Your task to perform on an android device: open app "LiveIn - Share Your Moment" (install if not already installed) and go to login screen Image 0: 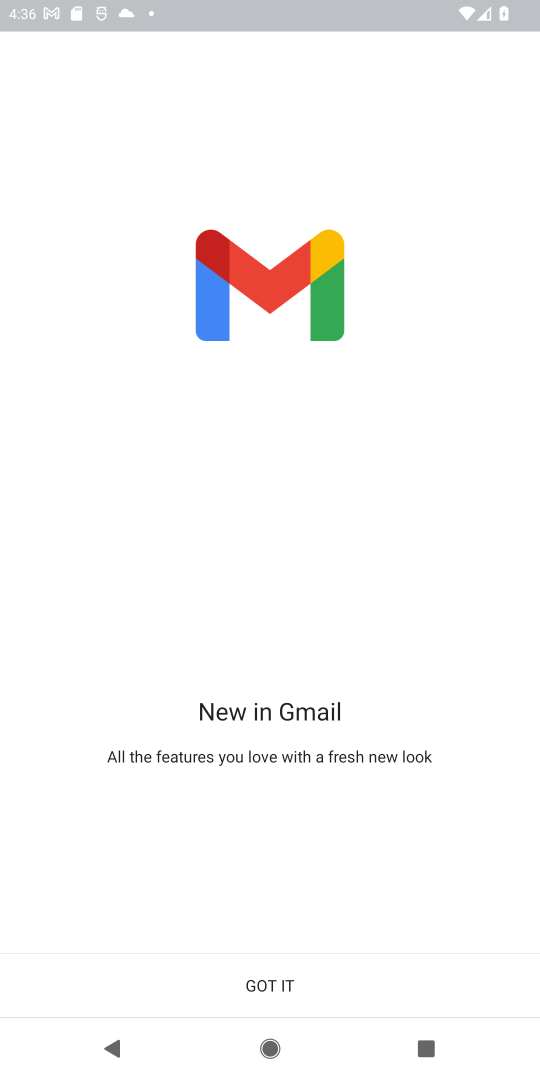
Step 0: press home button
Your task to perform on an android device: open app "LiveIn - Share Your Moment" (install if not already installed) and go to login screen Image 1: 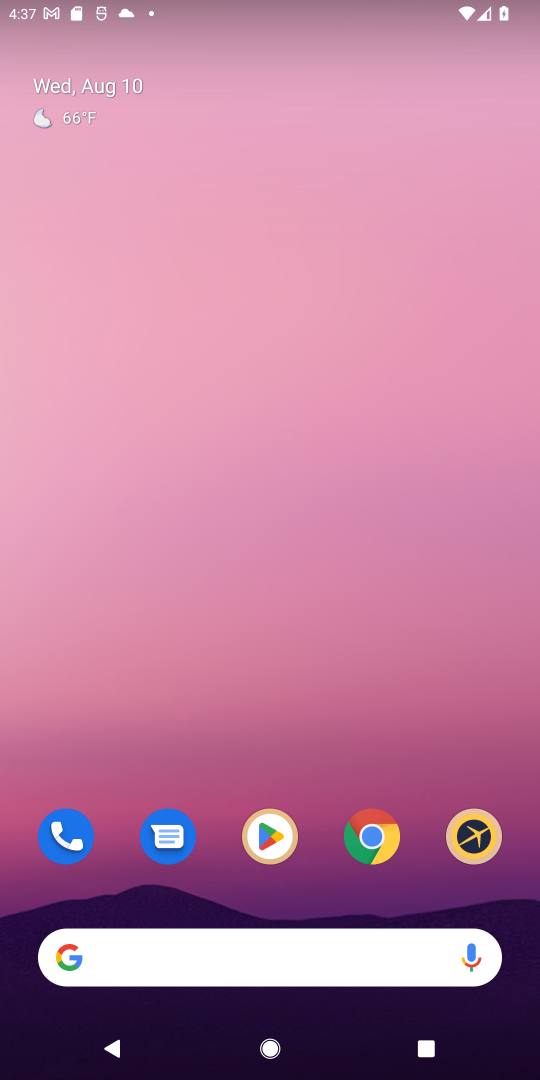
Step 1: drag from (167, 943) to (217, 40)
Your task to perform on an android device: open app "LiveIn - Share Your Moment" (install if not already installed) and go to login screen Image 2: 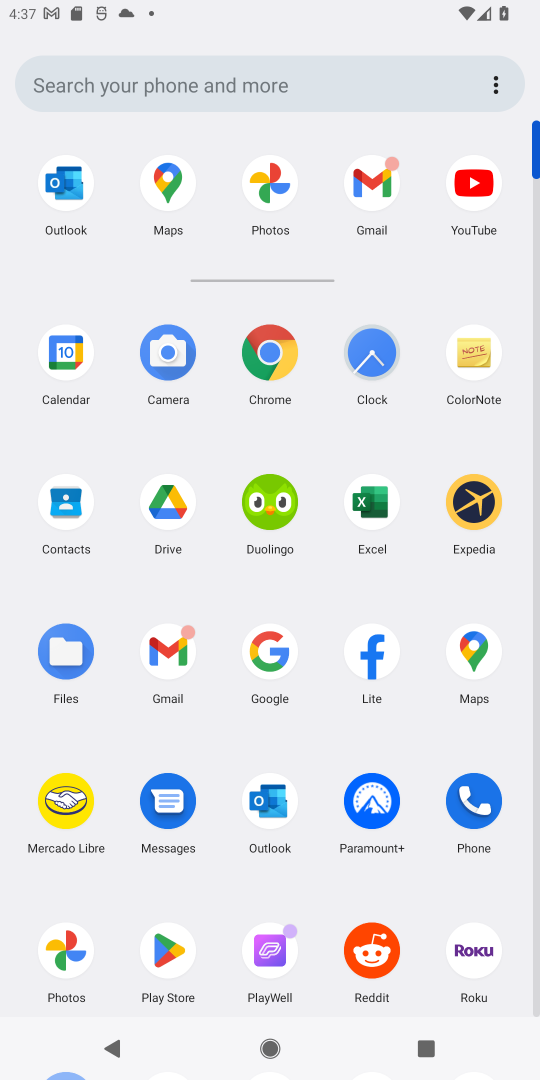
Step 2: click (162, 970)
Your task to perform on an android device: open app "LiveIn - Share Your Moment" (install if not already installed) and go to login screen Image 3: 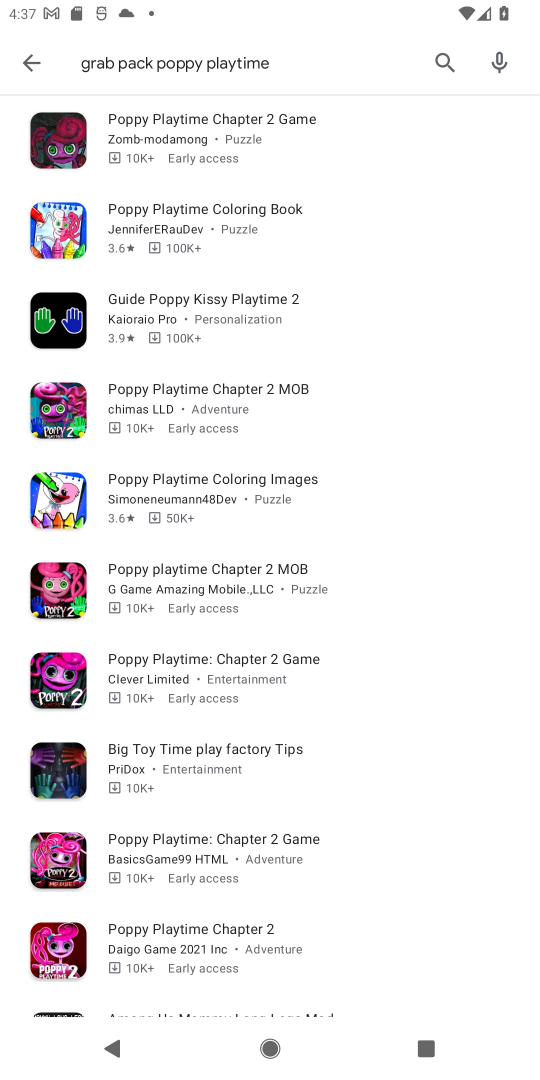
Step 3: click (43, 66)
Your task to perform on an android device: open app "LiveIn - Share Your Moment" (install if not already installed) and go to login screen Image 4: 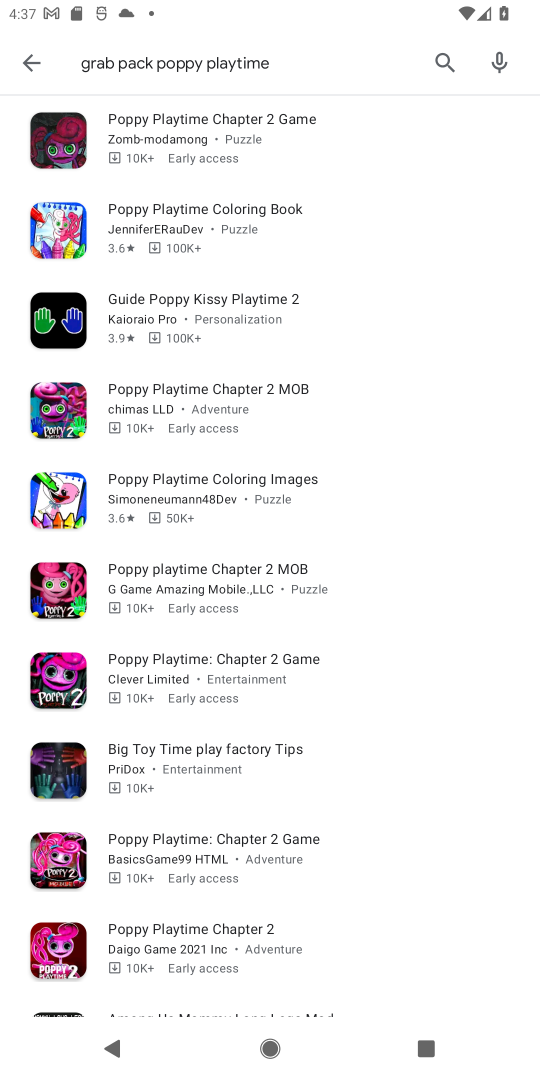
Step 4: click (43, 66)
Your task to perform on an android device: open app "LiveIn - Share Your Moment" (install if not already installed) and go to login screen Image 5: 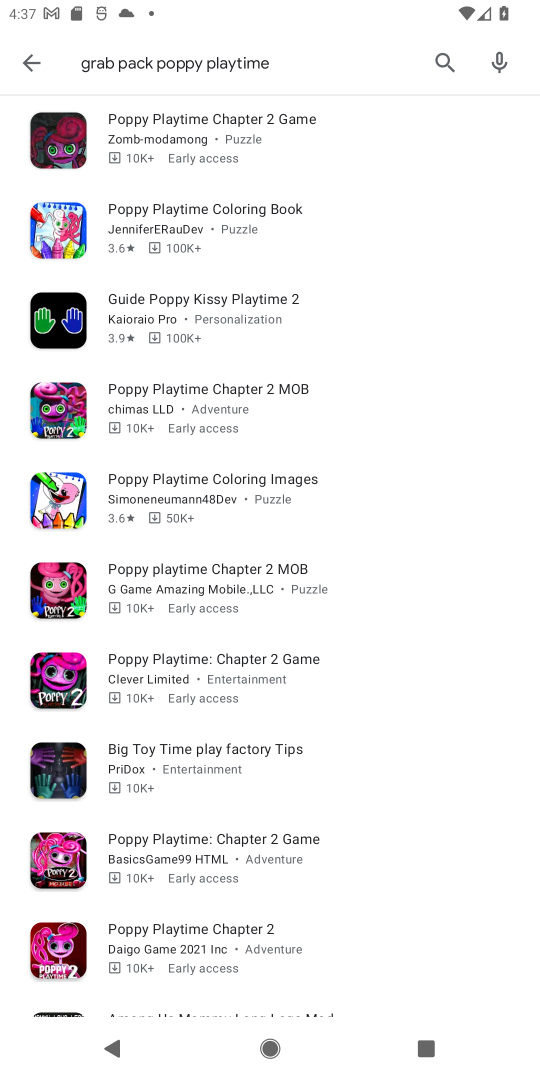
Step 5: click (43, 66)
Your task to perform on an android device: open app "LiveIn - Share Your Moment" (install if not already installed) and go to login screen Image 6: 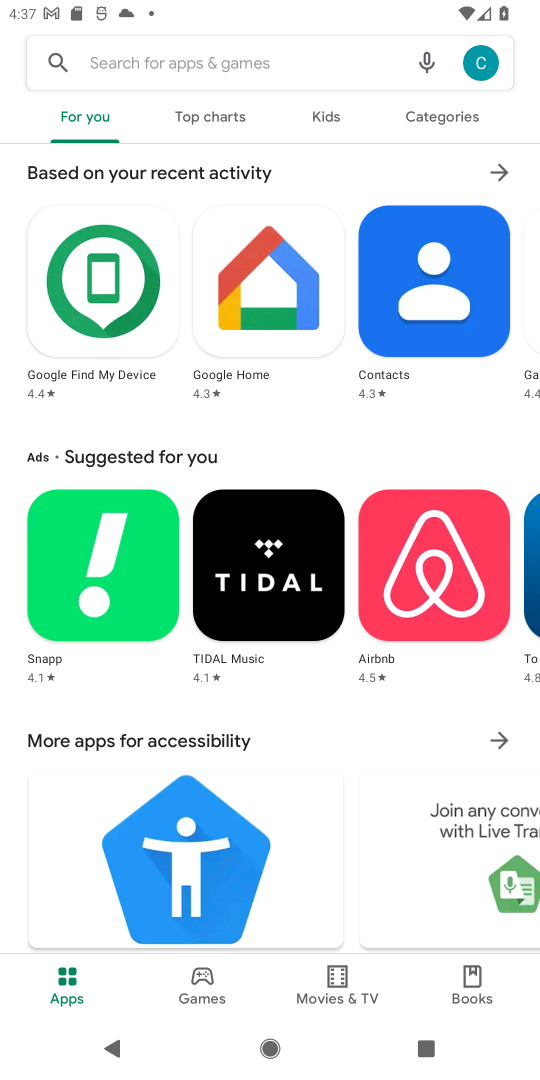
Step 6: click (287, 49)
Your task to perform on an android device: open app "LiveIn - Share Your Moment" (install if not already installed) and go to login screen Image 7: 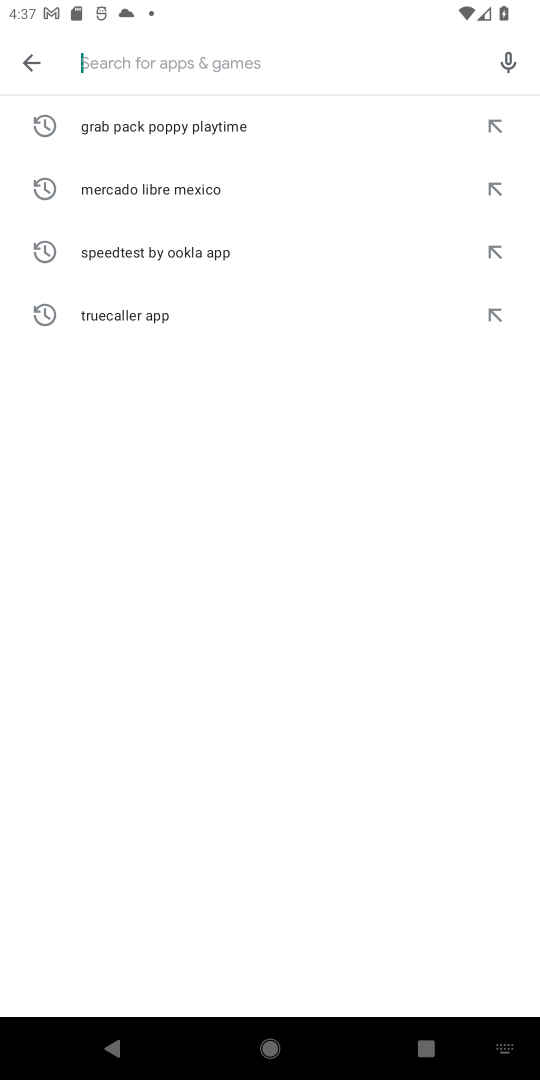
Step 7: type "LiveIn - Share Your Moment "
Your task to perform on an android device: open app "LiveIn - Share Your Moment" (install if not already installed) and go to login screen Image 8: 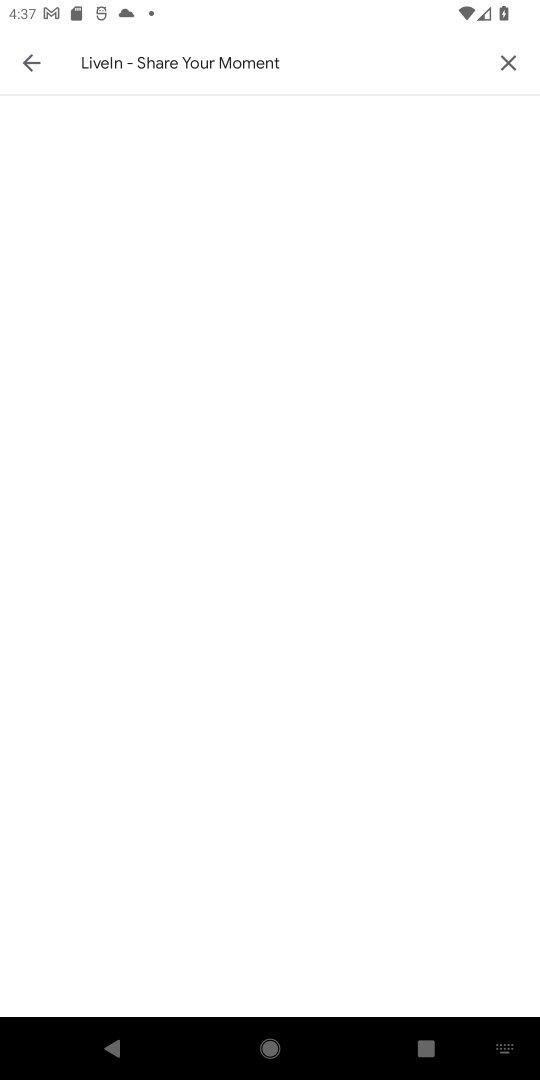
Step 8: click (301, 72)
Your task to perform on an android device: open app "LiveIn - Share Your Moment" (install if not already installed) and go to login screen Image 9: 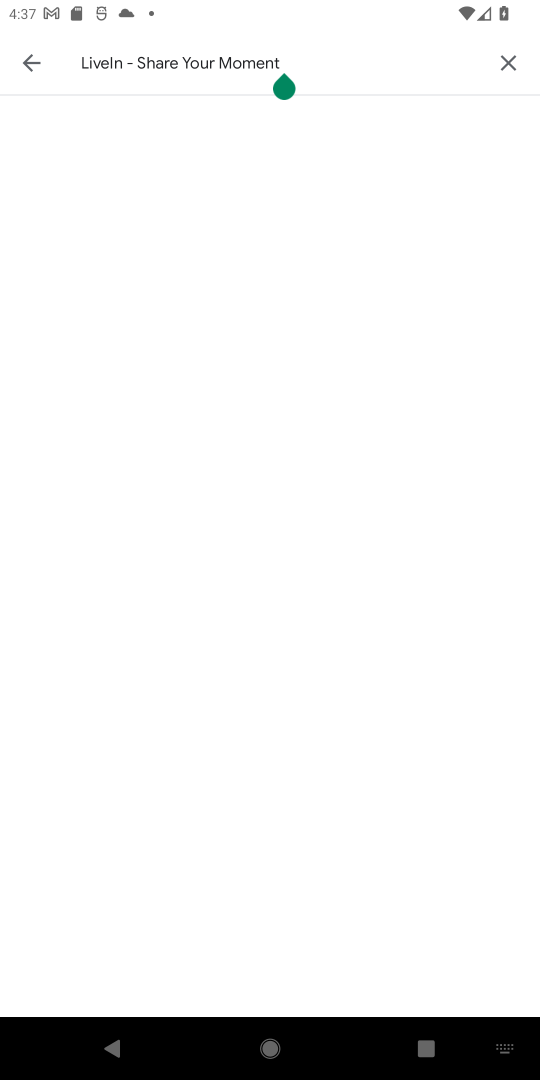
Step 9: click (325, 152)
Your task to perform on an android device: open app "LiveIn - Share Your Moment" (install if not already installed) and go to login screen Image 10: 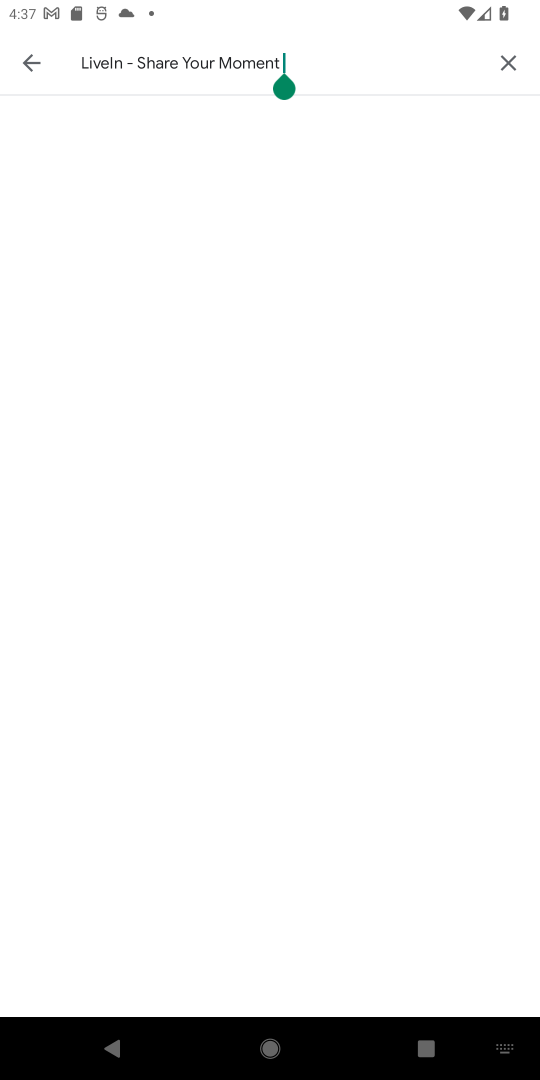
Step 10: click (325, 152)
Your task to perform on an android device: open app "LiveIn - Share Your Moment" (install if not already installed) and go to login screen Image 11: 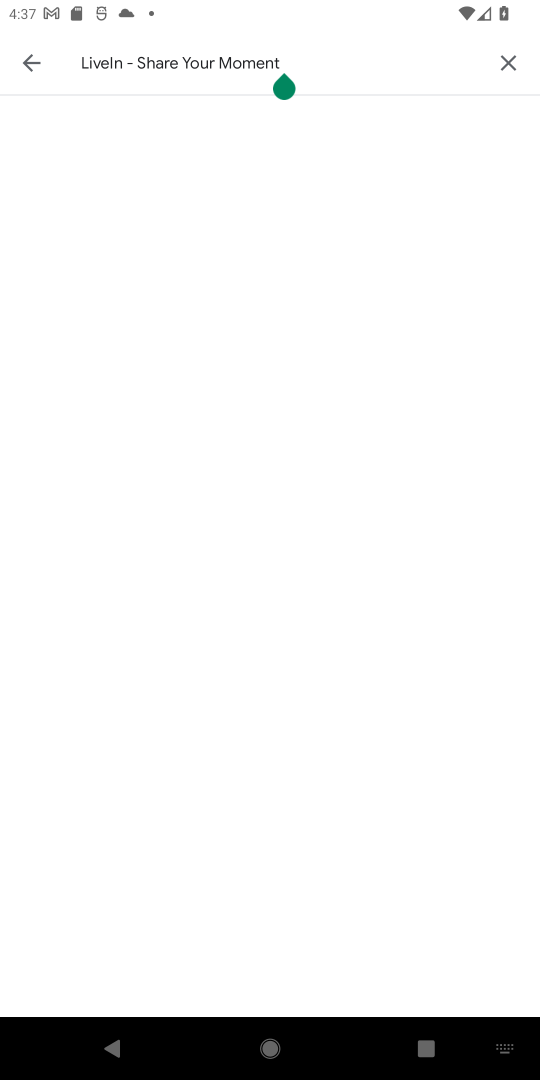
Step 11: click (325, 152)
Your task to perform on an android device: open app "LiveIn - Share Your Moment" (install if not already installed) and go to login screen Image 12: 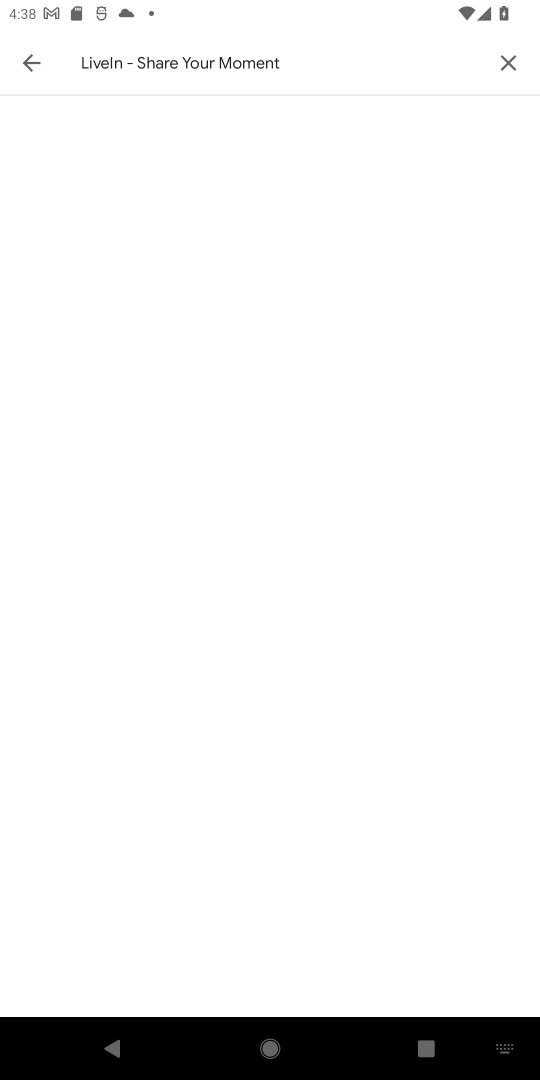
Step 12: task complete